Your task to perform on an android device: manage bookmarks in the chrome app Image 0: 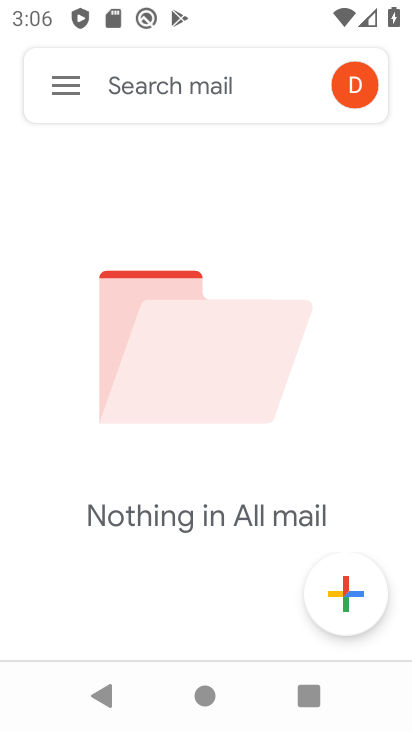
Step 0: press back button
Your task to perform on an android device: manage bookmarks in the chrome app Image 1: 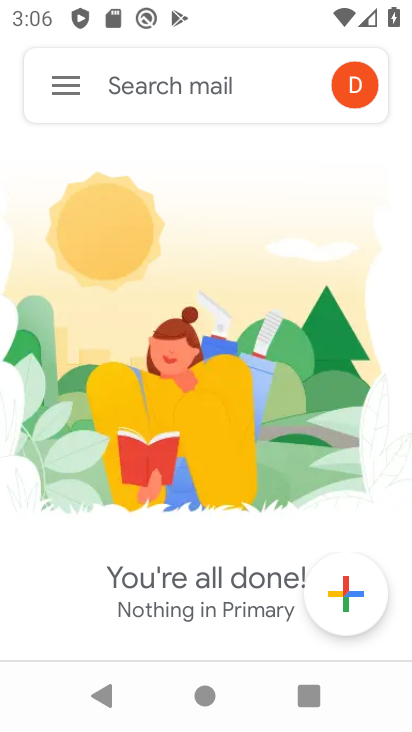
Step 1: click (170, 77)
Your task to perform on an android device: manage bookmarks in the chrome app Image 2: 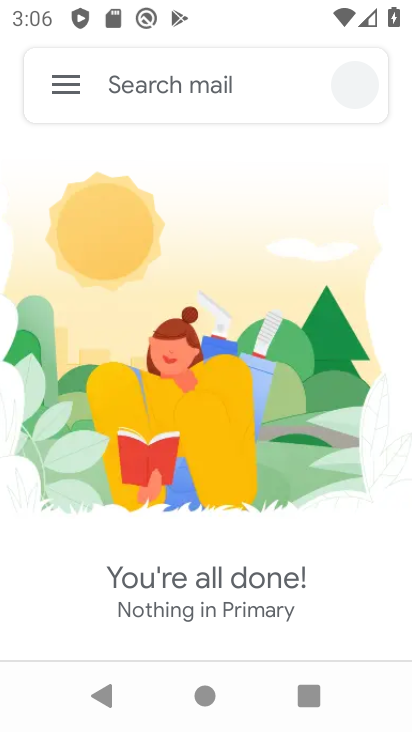
Step 2: drag from (241, 491) to (173, 26)
Your task to perform on an android device: manage bookmarks in the chrome app Image 3: 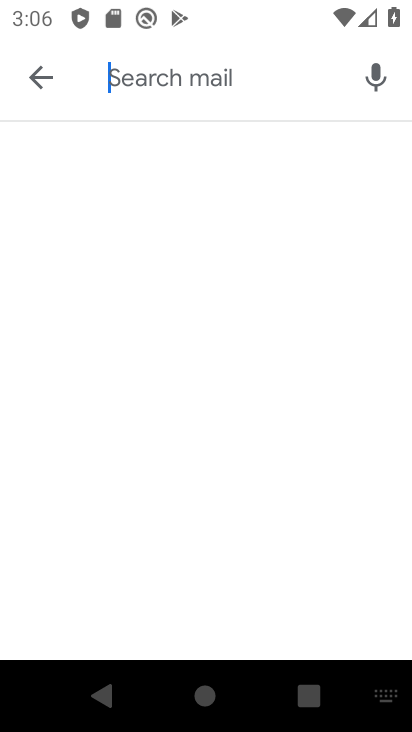
Step 3: click (31, 61)
Your task to perform on an android device: manage bookmarks in the chrome app Image 4: 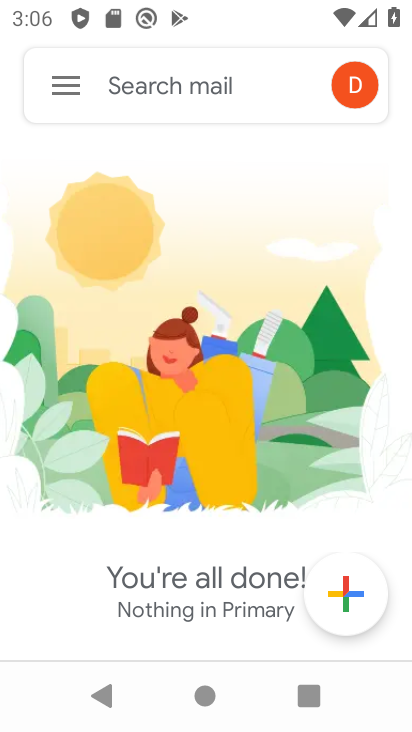
Step 4: press back button
Your task to perform on an android device: manage bookmarks in the chrome app Image 5: 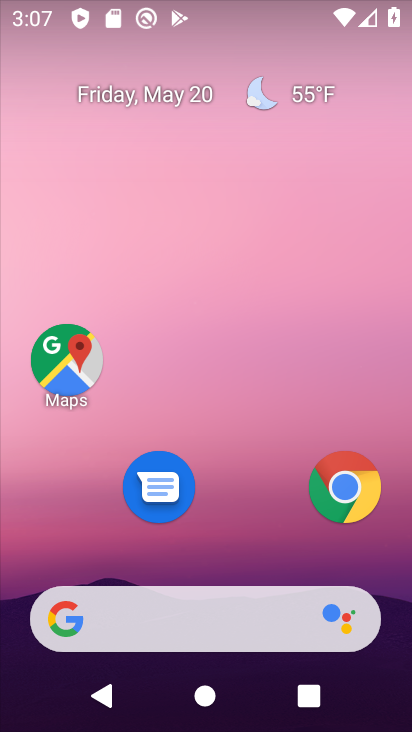
Step 5: drag from (246, 481) to (191, 56)
Your task to perform on an android device: manage bookmarks in the chrome app Image 6: 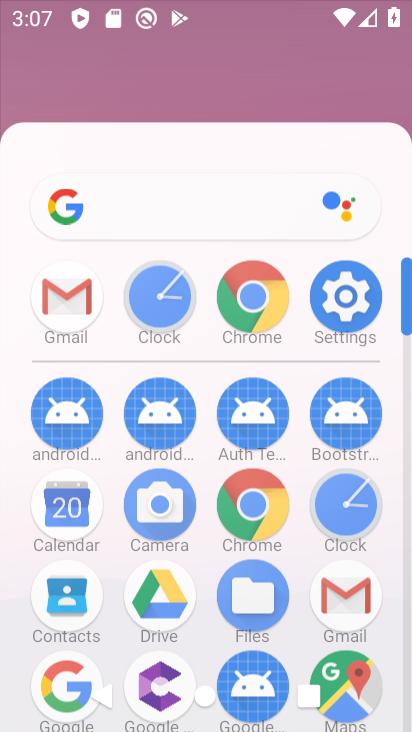
Step 6: drag from (273, 478) to (166, 79)
Your task to perform on an android device: manage bookmarks in the chrome app Image 7: 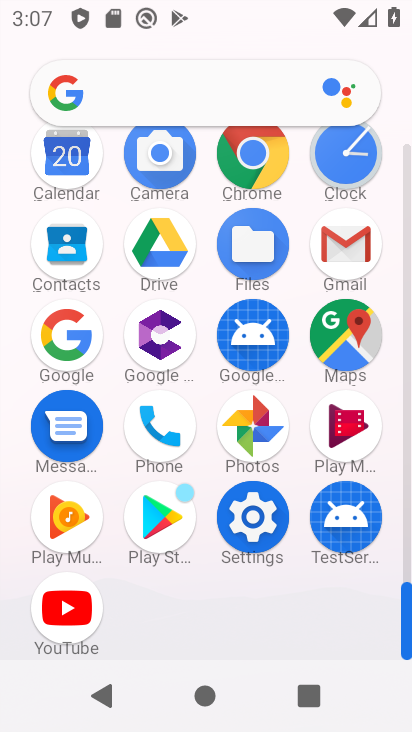
Step 7: click (268, 474)
Your task to perform on an android device: manage bookmarks in the chrome app Image 8: 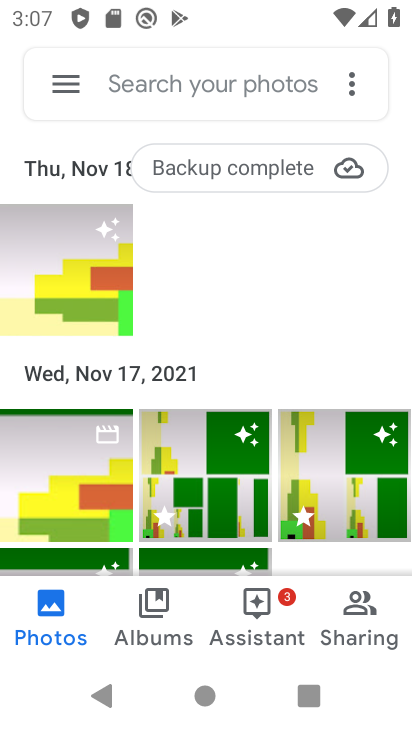
Step 8: press back button
Your task to perform on an android device: manage bookmarks in the chrome app Image 9: 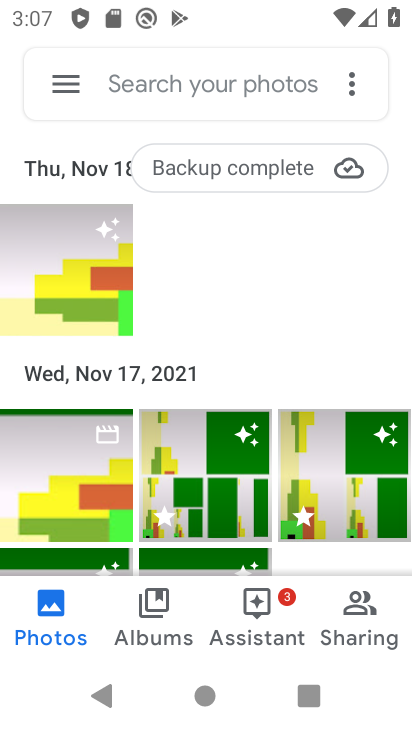
Step 9: press back button
Your task to perform on an android device: manage bookmarks in the chrome app Image 10: 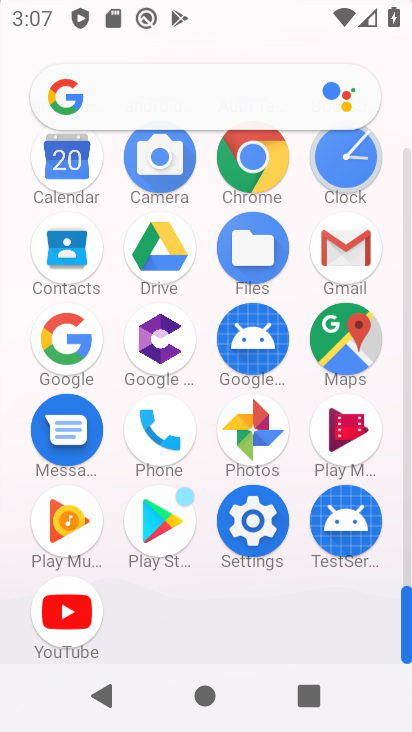
Step 10: press back button
Your task to perform on an android device: manage bookmarks in the chrome app Image 11: 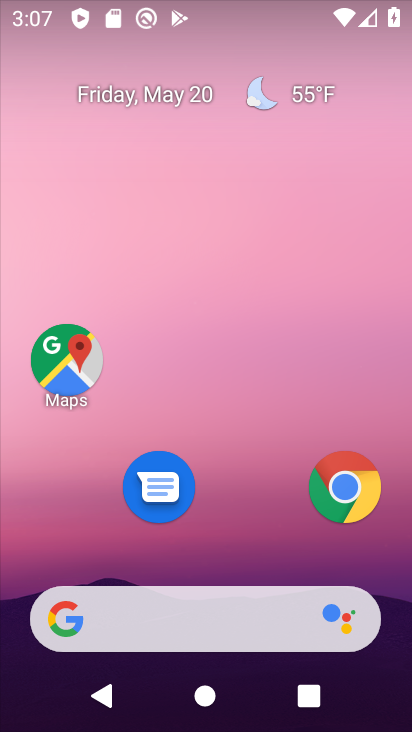
Step 11: press back button
Your task to perform on an android device: manage bookmarks in the chrome app Image 12: 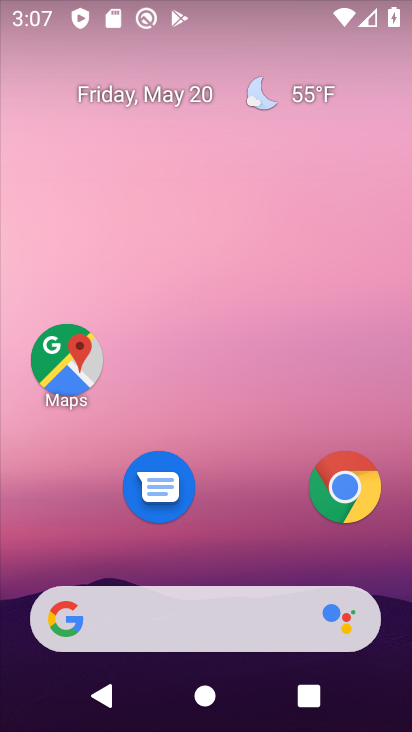
Step 12: drag from (287, 598) to (234, 78)
Your task to perform on an android device: manage bookmarks in the chrome app Image 13: 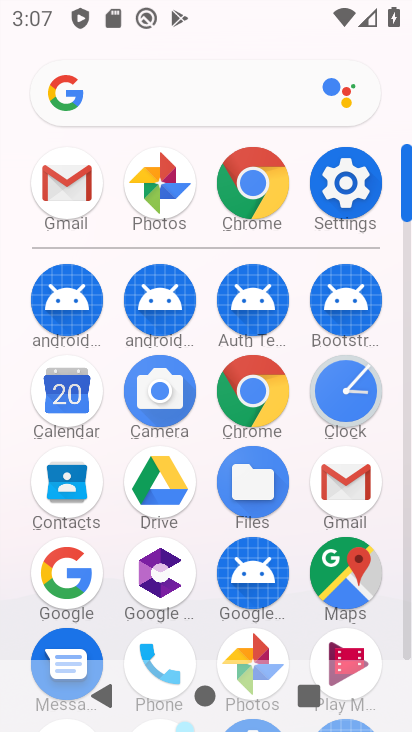
Step 13: click (245, 182)
Your task to perform on an android device: manage bookmarks in the chrome app Image 14: 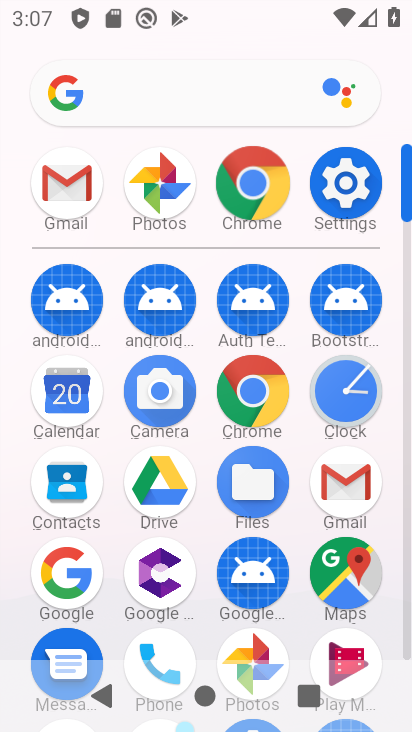
Step 14: click (248, 180)
Your task to perform on an android device: manage bookmarks in the chrome app Image 15: 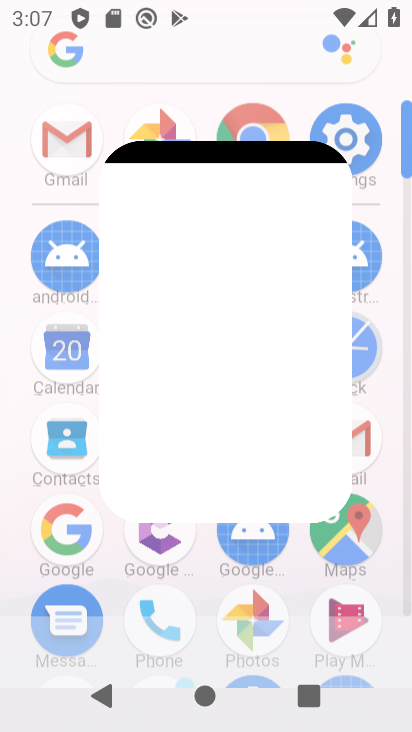
Step 15: click (249, 179)
Your task to perform on an android device: manage bookmarks in the chrome app Image 16: 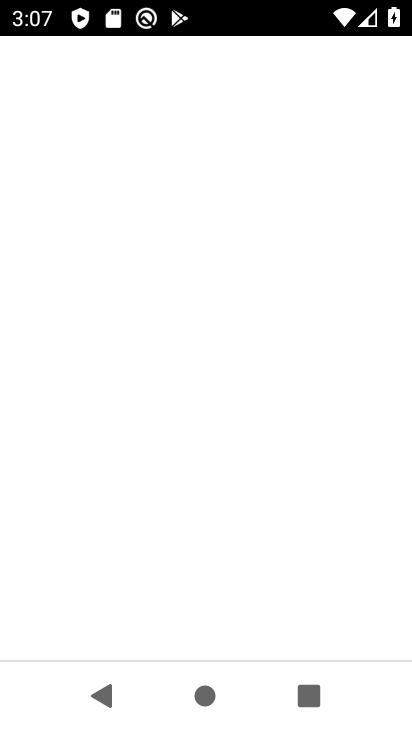
Step 16: click (270, 177)
Your task to perform on an android device: manage bookmarks in the chrome app Image 17: 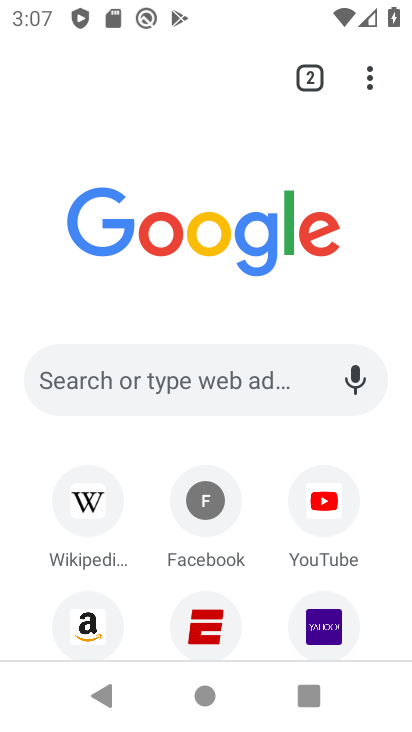
Step 17: drag from (372, 85) to (88, 300)
Your task to perform on an android device: manage bookmarks in the chrome app Image 18: 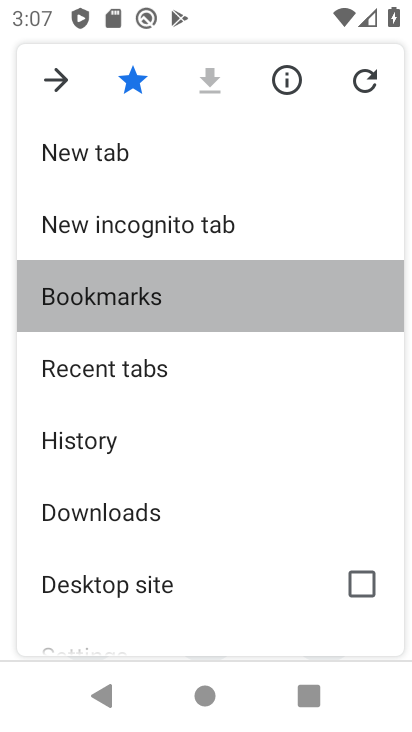
Step 18: click (90, 299)
Your task to perform on an android device: manage bookmarks in the chrome app Image 19: 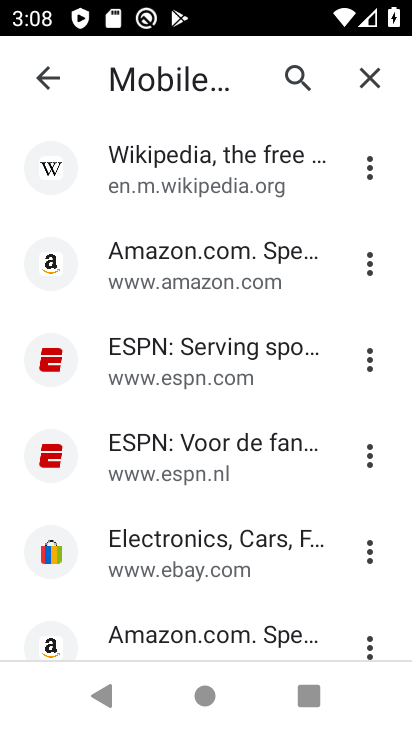
Step 19: click (363, 162)
Your task to perform on an android device: manage bookmarks in the chrome app Image 20: 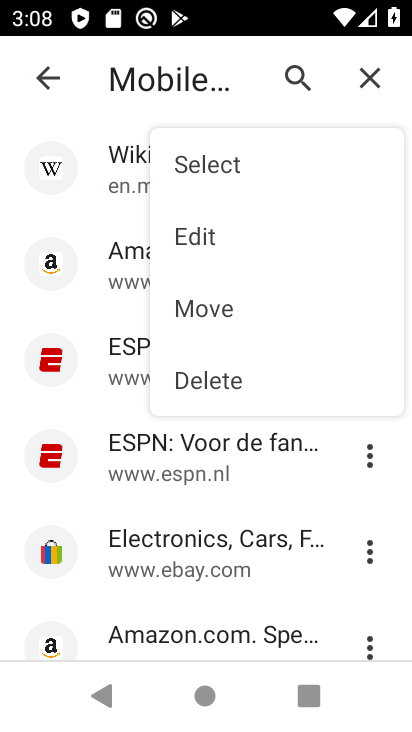
Step 20: click (363, 162)
Your task to perform on an android device: manage bookmarks in the chrome app Image 21: 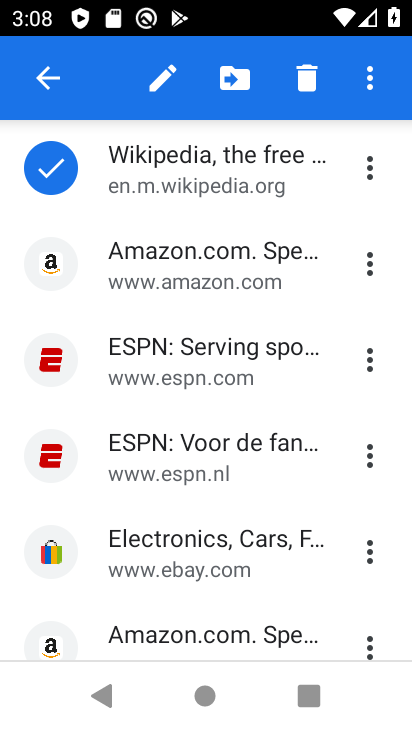
Step 21: click (193, 378)
Your task to perform on an android device: manage bookmarks in the chrome app Image 22: 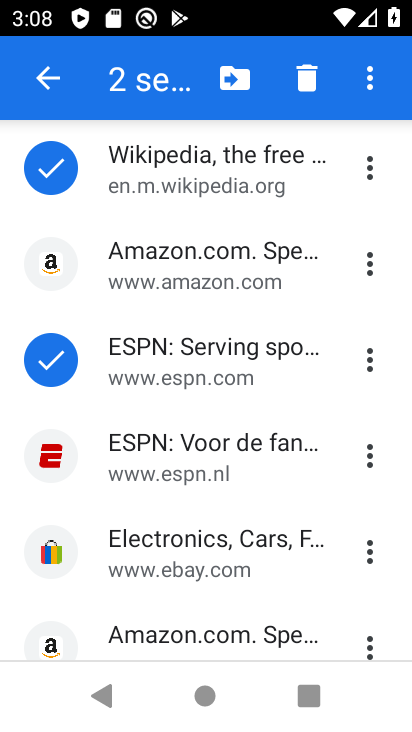
Step 22: click (299, 79)
Your task to perform on an android device: manage bookmarks in the chrome app Image 23: 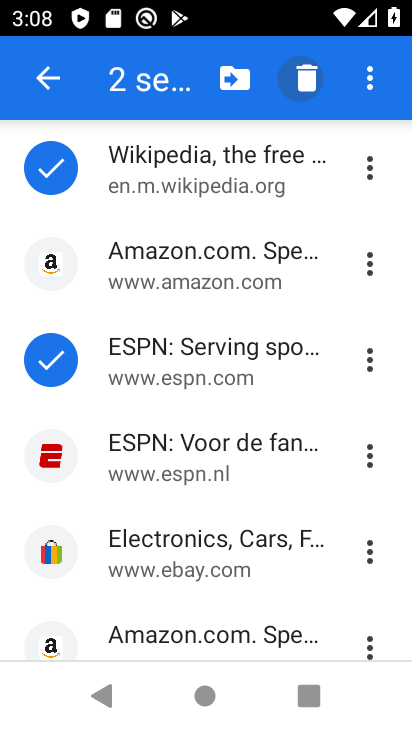
Step 23: click (302, 98)
Your task to perform on an android device: manage bookmarks in the chrome app Image 24: 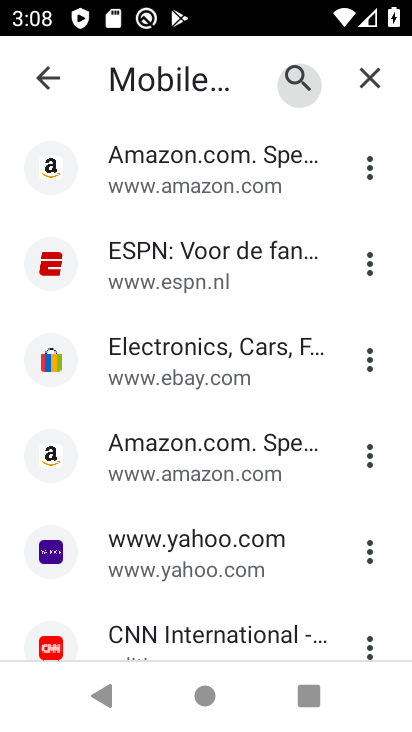
Step 24: click (304, 98)
Your task to perform on an android device: manage bookmarks in the chrome app Image 25: 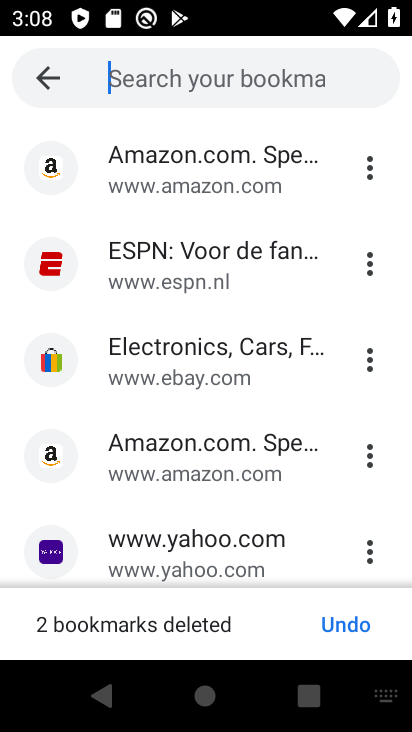
Step 25: task complete